Your task to perform on an android device: Go to sound settings Image 0: 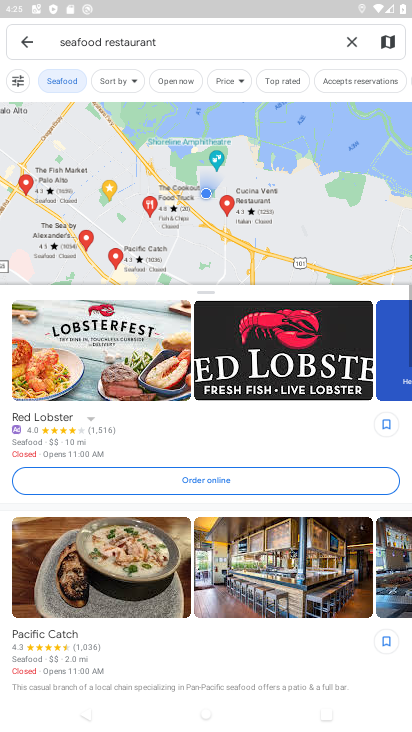
Step 0: press home button
Your task to perform on an android device: Go to sound settings Image 1: 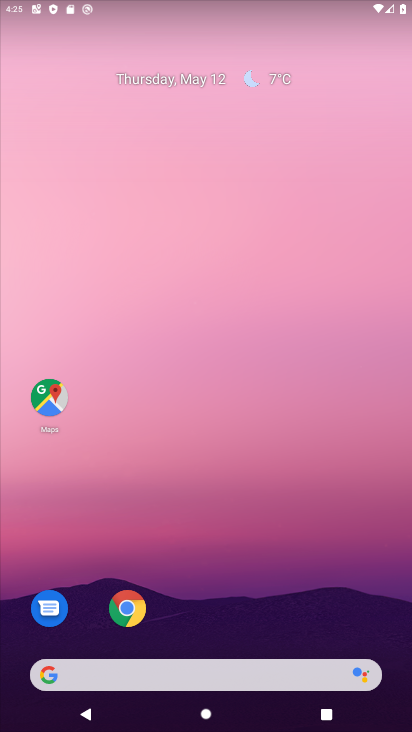
Step 1: drag from (221, 617) to (366, 52)
Your task to perform on an android device: Go to sound settings Image 2: 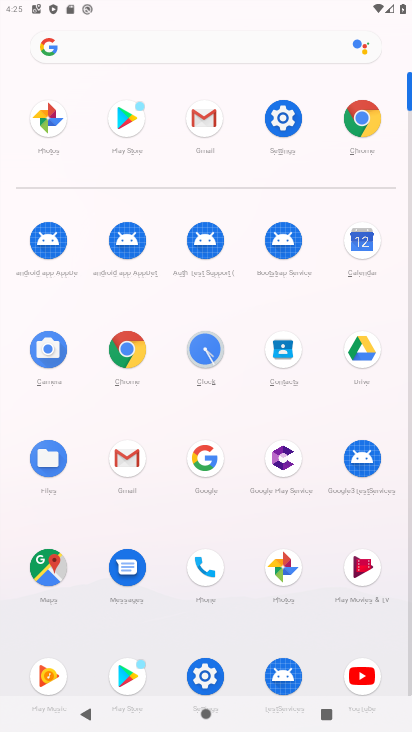
Step 2: click (281, 98)
Your task to perform on an android device: Go to sound settings Image 3: 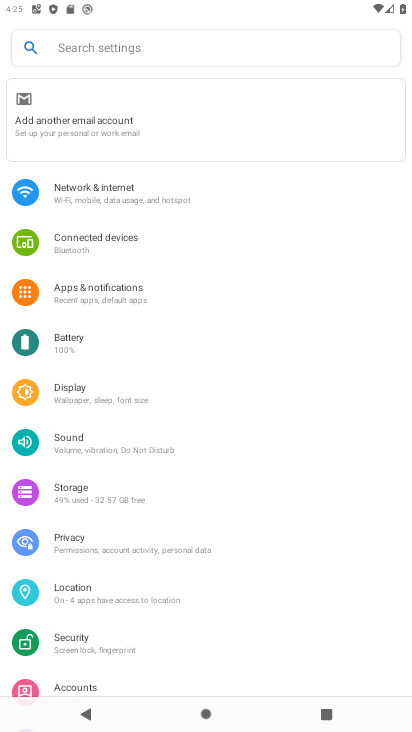
Step 3: click (92, 437)
Your task to perform on an android device: Go to sound settings Image 4: 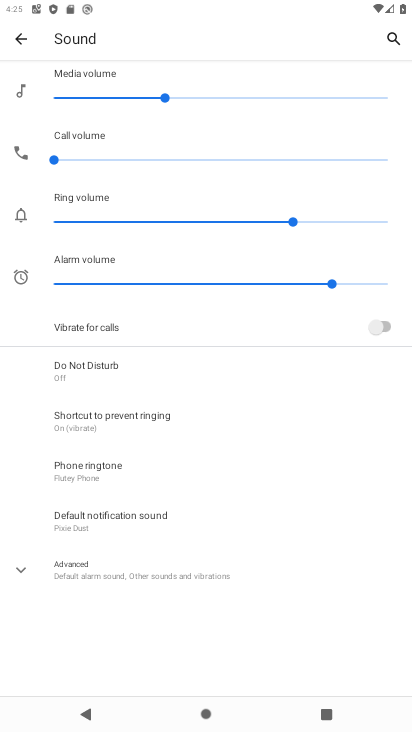
Step 4: task complete